Your task to perform on an android device: see tabs open on other devices in the chrome app Image 0: 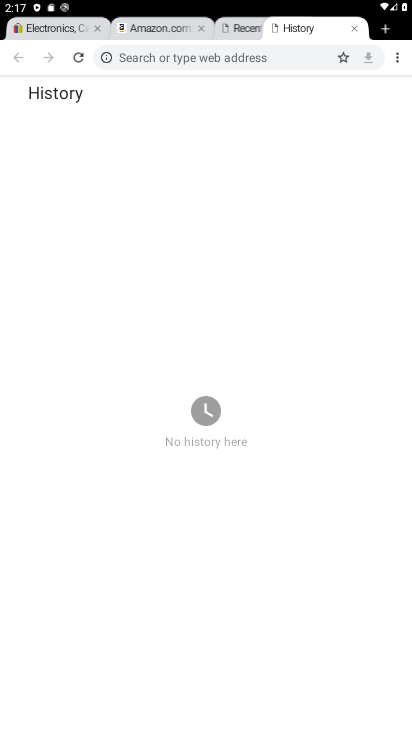
Step 0: click (393, 50)
Your task to perform on an android device: see tabs open on other devices in the chrome app Image 1: 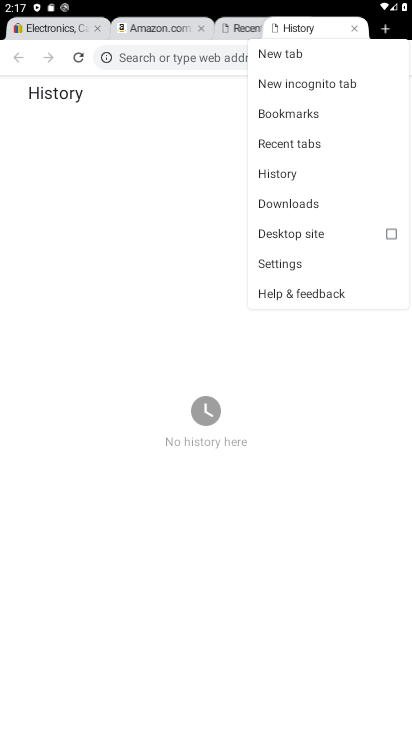
Step 1: click (295, 276)
Your task to perform on an android device: see tabs open on other devices in the chrome app Image 2: 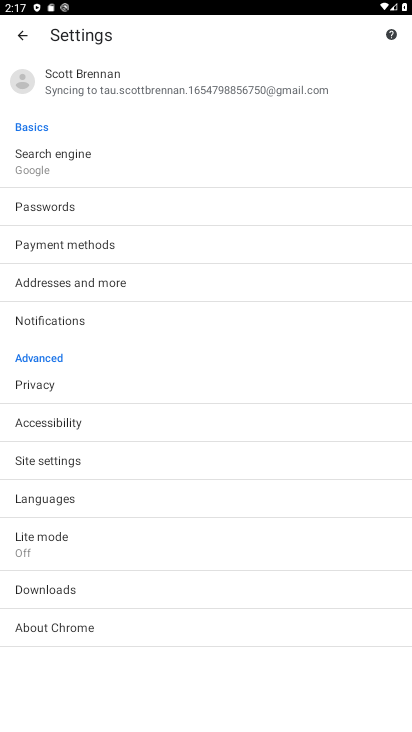
Step 2: task complete